Your task to perform on an android device: What's the weather today? Image 0: 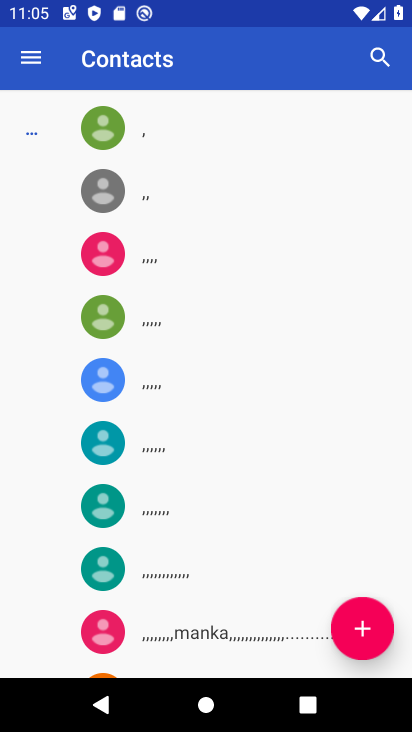
Step 0: press home button
Your task to perform on an android device: What's the weather today? Image 1: 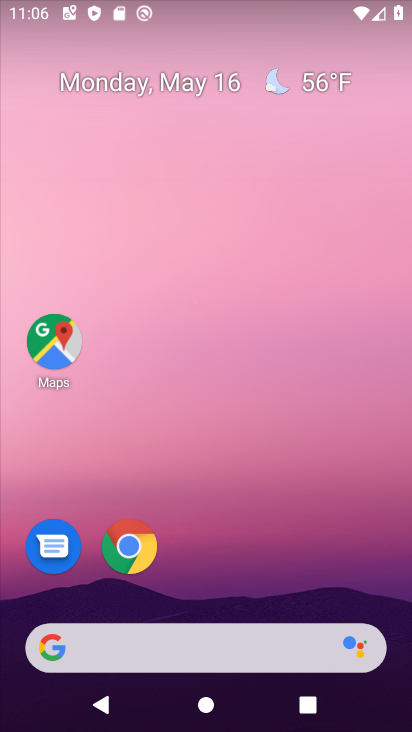
Step 1: drag from (329, 502) to (321, 86)
Your task to perform on an android device: What's the weather today? Image 2: 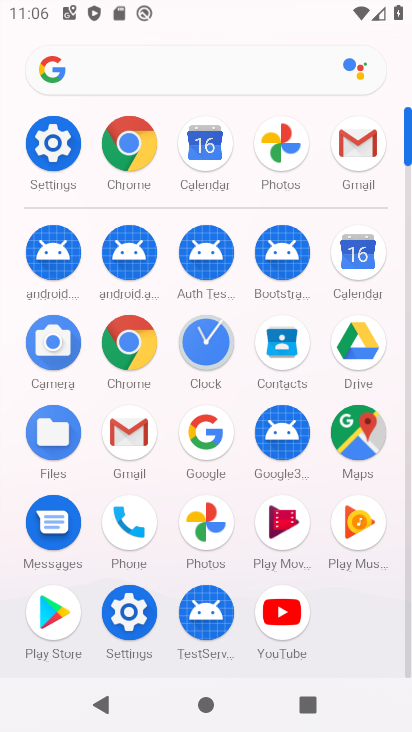
Step 2: press home button
Your task to perform on an android device: What's the weather today? Image 3: 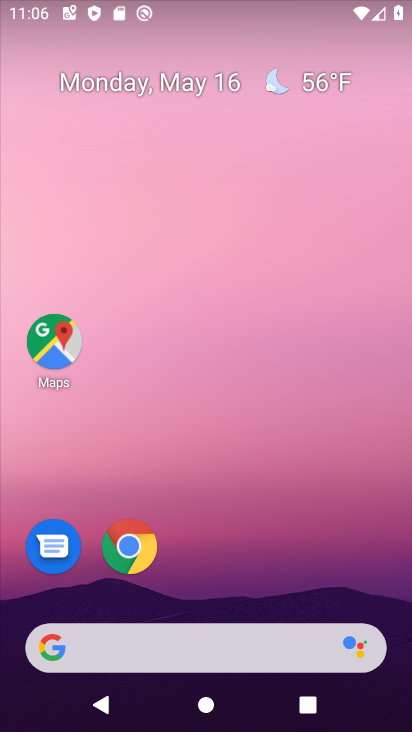
Step 3: click (307, 92)
Your task to perform on an android device: What's the weather today? Image 4: 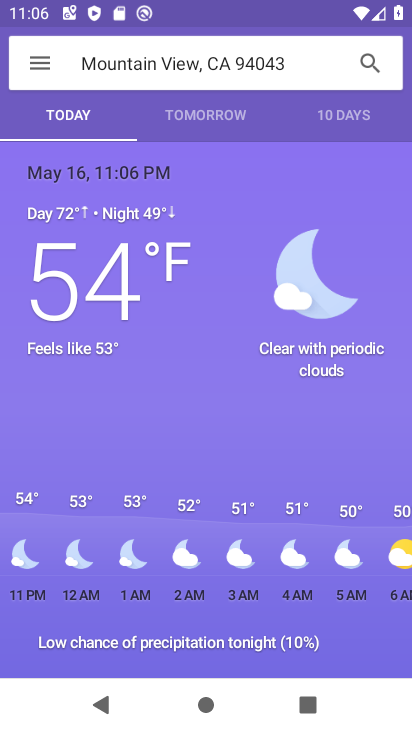
Step 4: task complete